Your task to perform on an android device: Open Google Chrome Image 0: 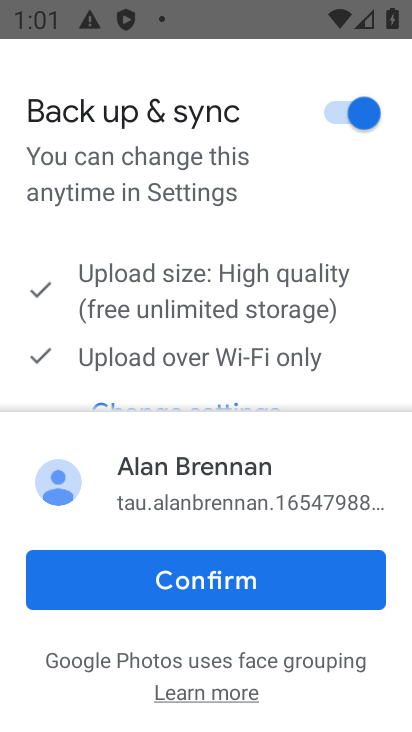
Step 0: press home button
Your task to perform on an android device: Open Google Chrome Image 1: 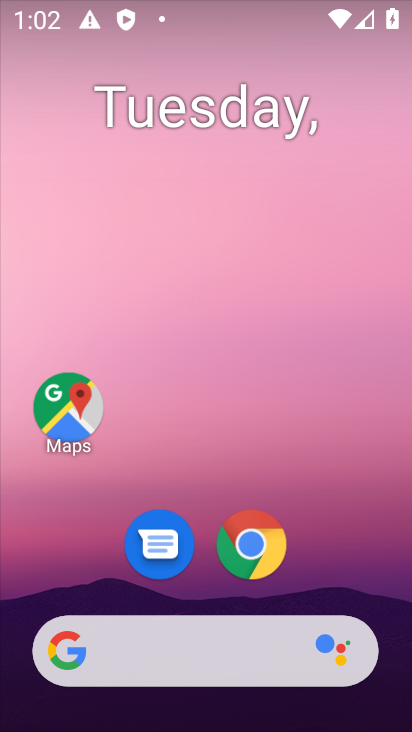
Step 1: drag from (346, 493) to (405, 106)
Your task to perform on an android device: Open Google Chrome Image 2: 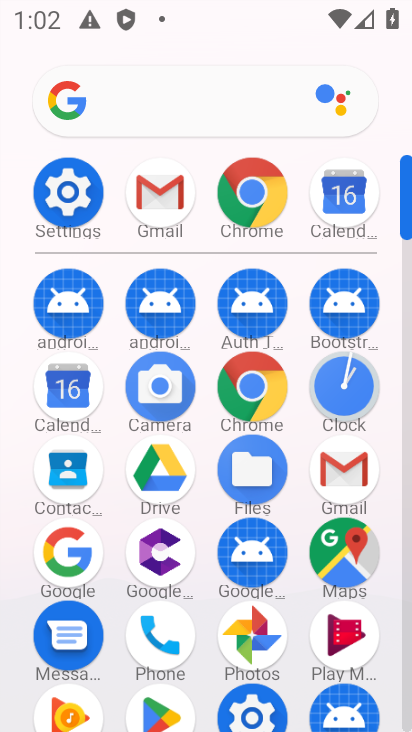
Step 2: click (250, 386)
Your task to perform on an android device: Open Google Chrome Image 3: 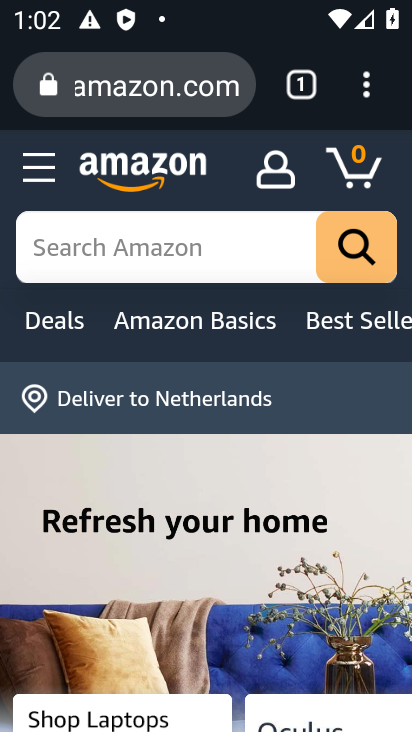
Step 3: task complete